Your task to perform on an android device: delete a single message in the gmail app Image 0: 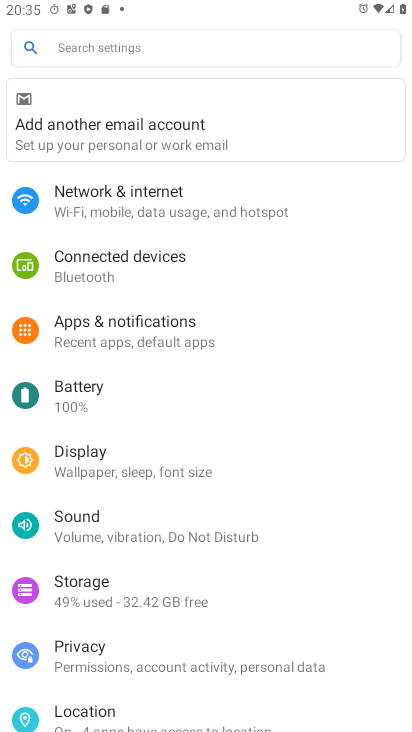
Step 0: press home button
Your task to perform on an android device: delete a single message in the gmail app Image 1: 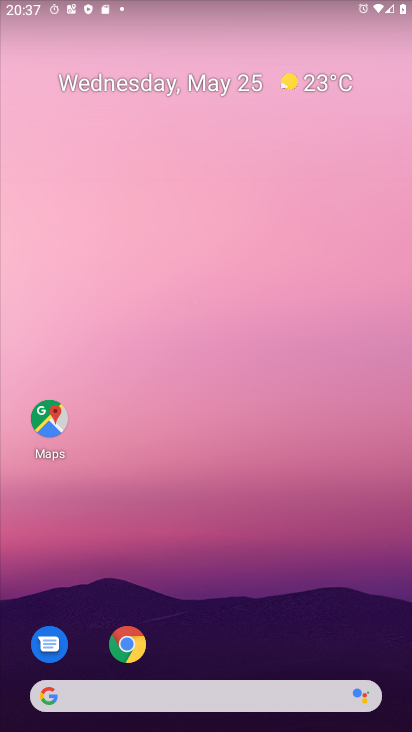
Step 1: drag from (278, 713) to (185, 112)
Your task to perform on an android device: delete a single message in the gmail app Image 2: 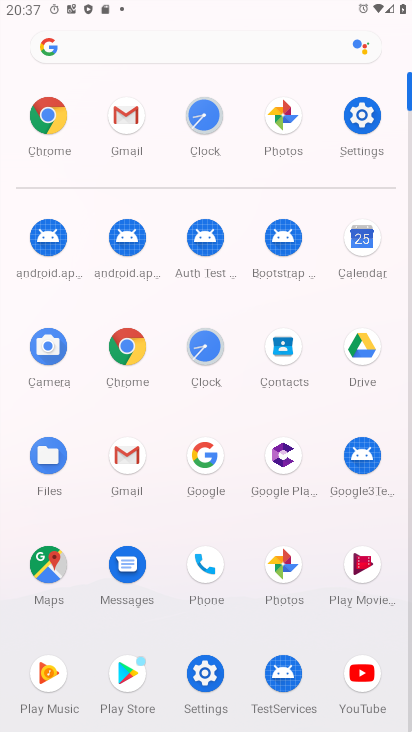
Step 2: click (108, 124)
Your task to perform on an android device: delete a single message in the gmail app Image 3: 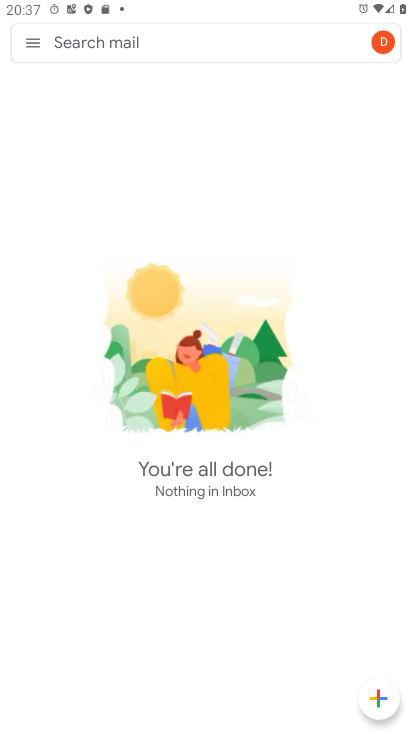
Step 3: task complete